Your task to perform on an android device: turn off sleep mode Image 0: 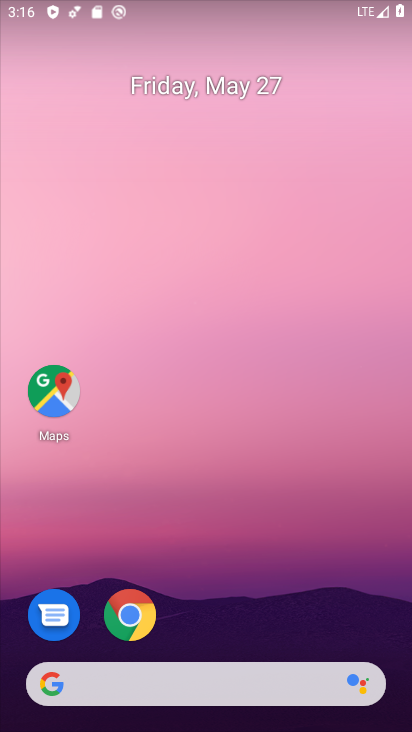
Step 0: drag from (271, 648) to (219, 97)
Your task to perform on an android device: turn off sleep mode Image 1: 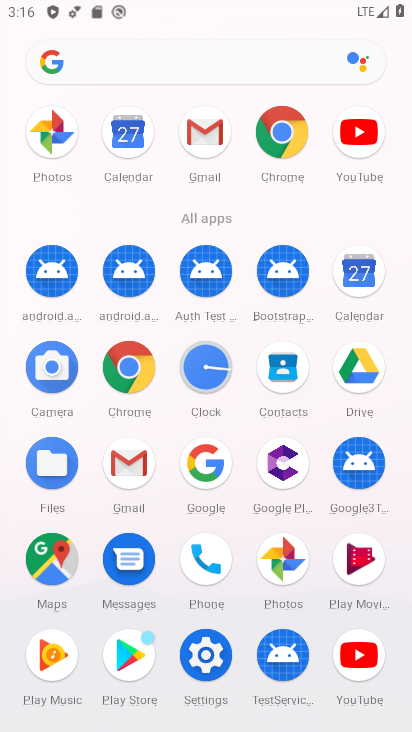
Step 1: click (199, 659)
Your task to perform on an android device: turn off sleep mode Image 2: 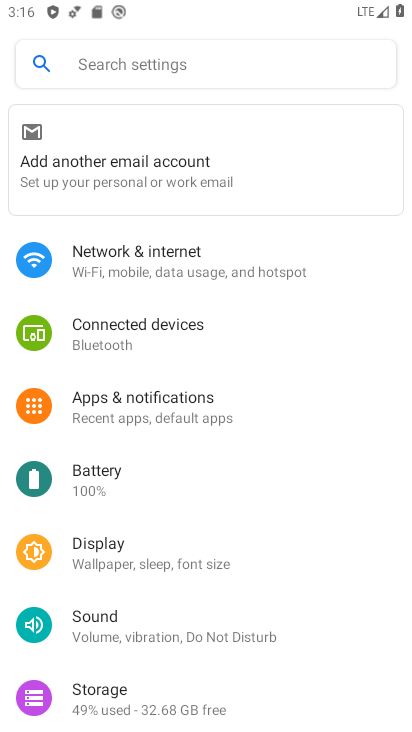
Step 2: click (146, 557)
Your task to perform on an android device: turn off sleep mode Image 3: 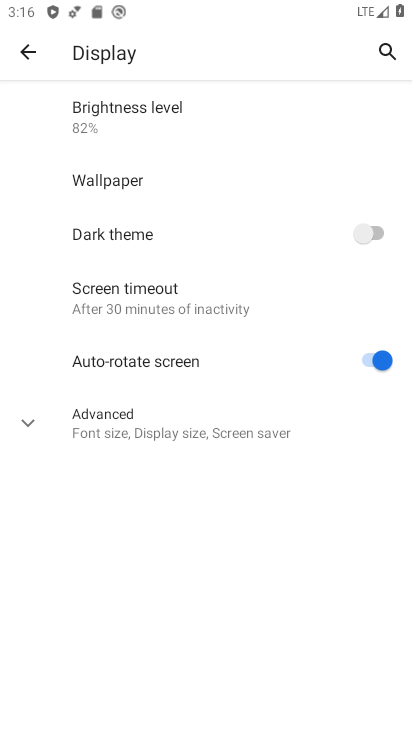
Step 3: task complete